Your task to perform on an android device: turn on airplane mode Image 0: 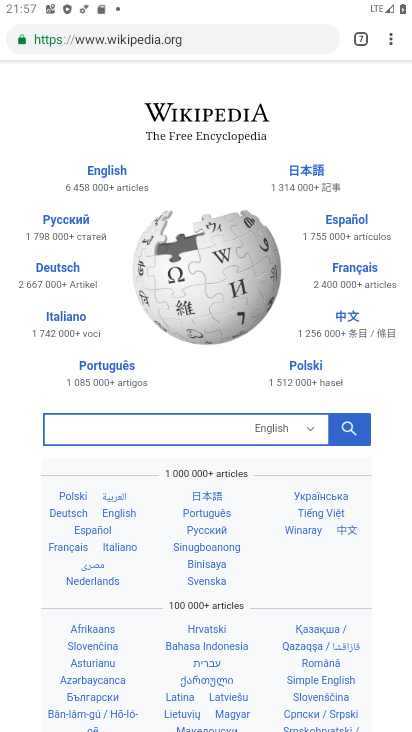
Step 0: drag from (306, 6) to (243, 537)
Your task to perform on an android device: turn on airplane mode Image 1: 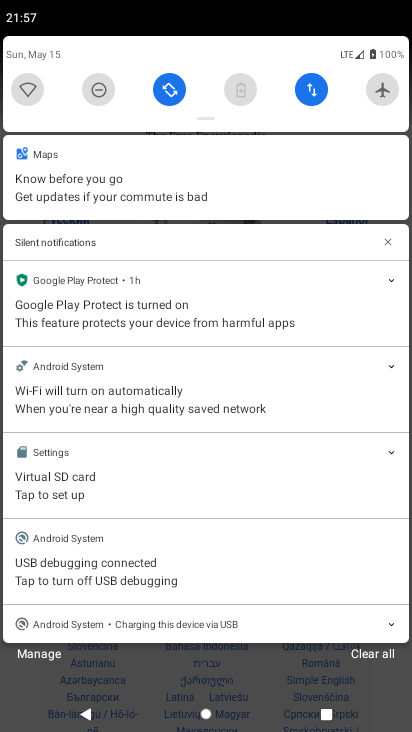
Step 1: click (383, 90)
Your task to perform on an android device: turn on airplane mode Image 2: 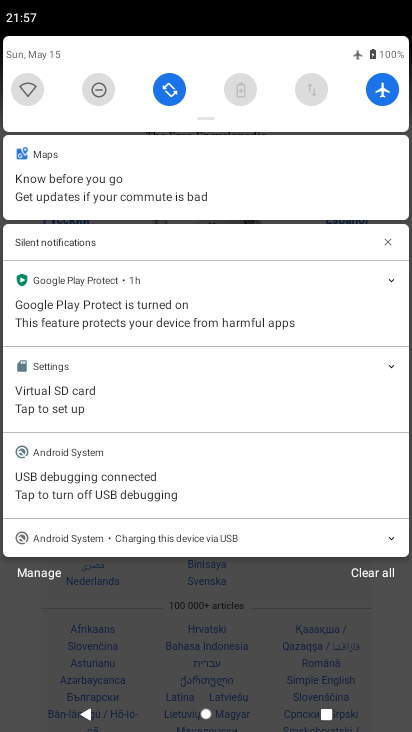
Step 2: task complete